Your task to perform on an android device: turn on javascript in the chrome app Image 0: 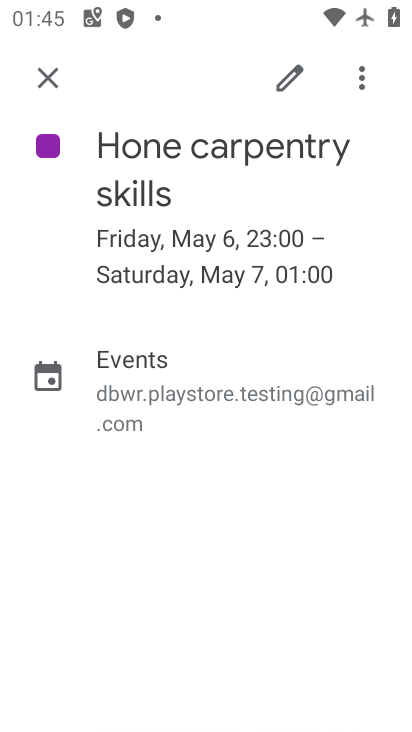
Step 0: press home button
Your task to perform on an android device: turn on javascript in the chrome app Image 1: 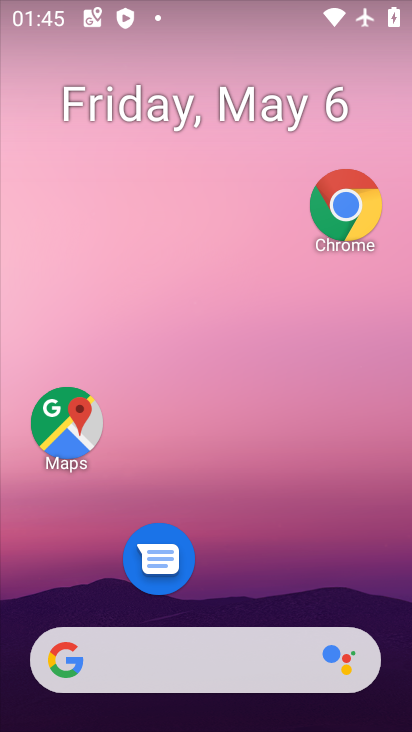
Step 1: click (348, 217)
Your task to perform on an android device: turn on javascript in the chrome app Image 2: 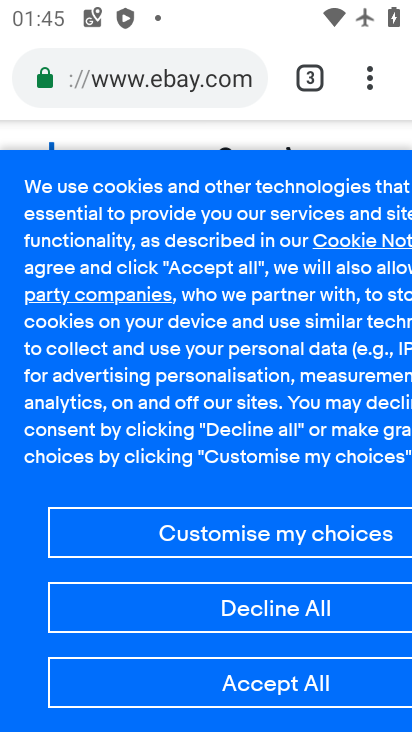
Step 2: drag from (370, 76) to (148, 622)
Your task to perform on an android device: turn on javascript in the chrome app Image 3: 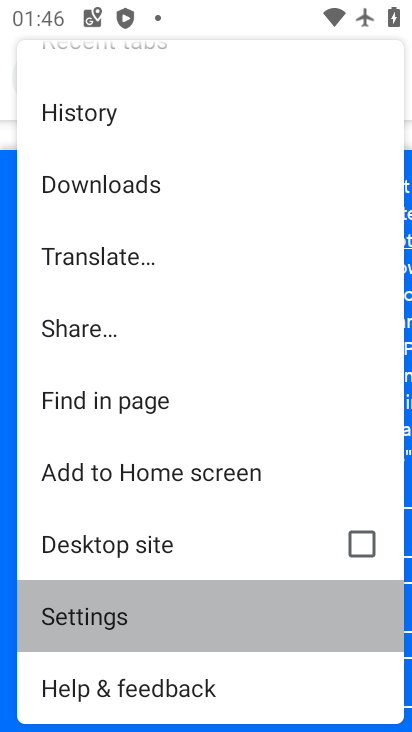
Step 3: click (148, 622)
Your task to perform on an android device: turn on javascript in the chrome app Image 4: 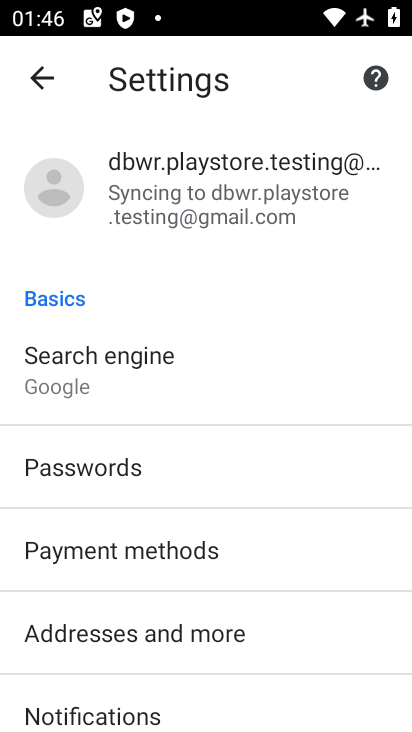
Step 4: drag from (142, 691) to (281, 243)
Your task to perform on an android device: turn on javascript in the chrome app Image 5: 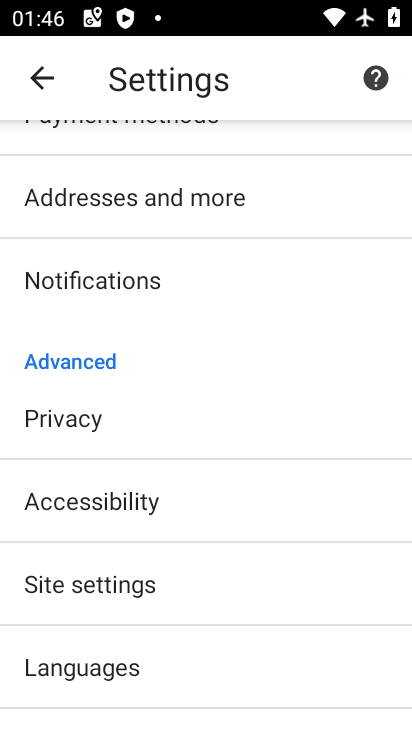
Step 5: click (109, 592)
Your task to perform on an android device: turn on javascript in the chrome app Image 6: 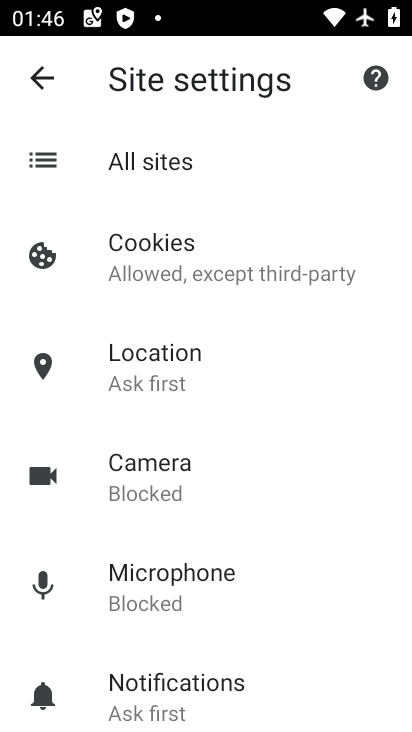
Step 6: drag from (198, 597) to (255, 173)
Your task to perform on an android device: turn on javascript in the chrome app Image 7: 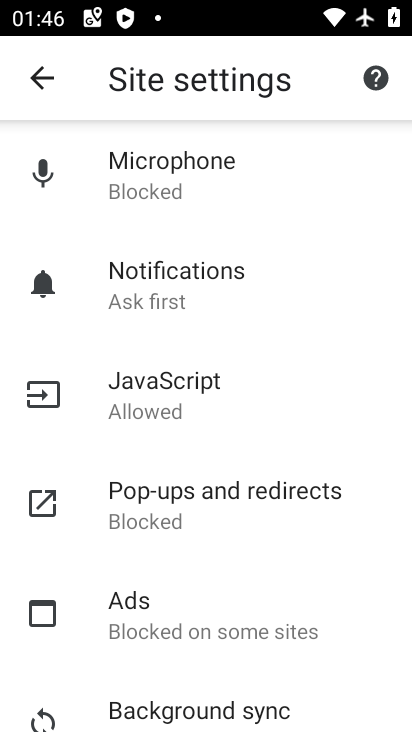
Step 7: click (170, 398)
Your task to perform on an android device: turn on javascript in the chrome app Image 8: 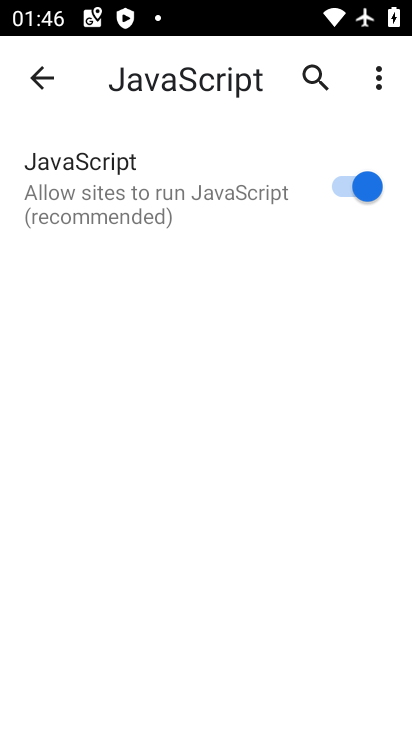
Step 8: task complete